Your task to perform on an android device: Open Google Chrome and open the bookmarks view Image 0: 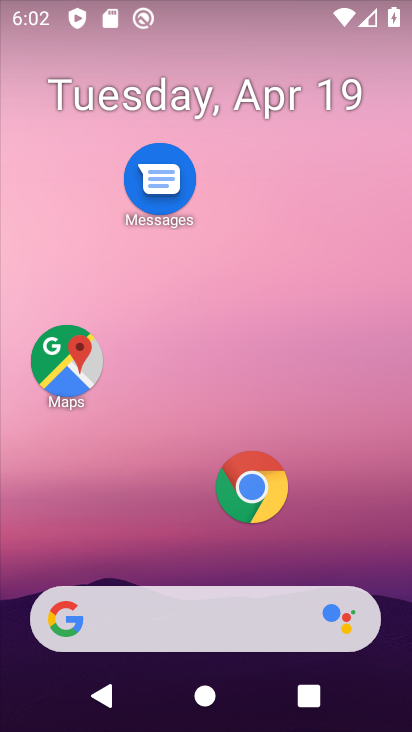
Step 0: drag from (205, 555) to (212, 95)
Your task to perform on an android device: Open Google Chrome and open the bookmarks view Image 1: 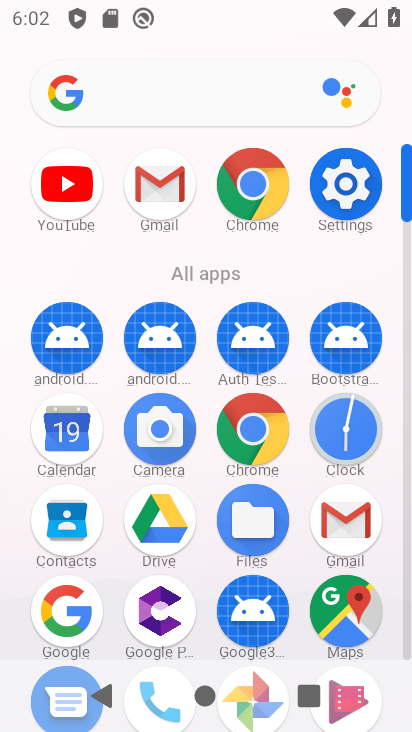
Step 1: drag from (205, 567) to (219, 247)
Your task to perform on an android device: Open Google Chrome and open the bookmarks view Image 2: 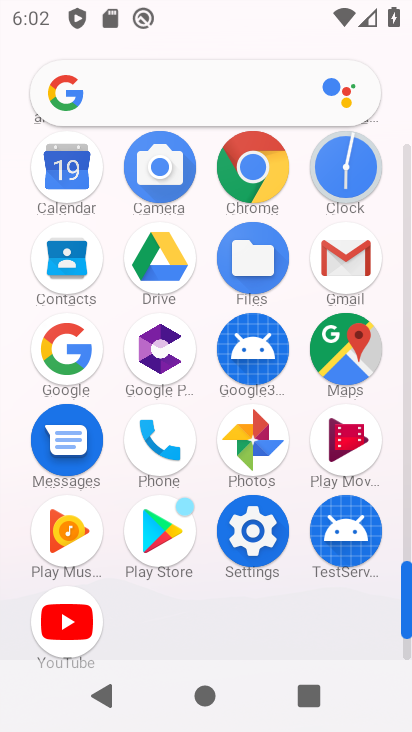
Step 2: click (248, 161)
Your task to perform on an android device: Open Google Chrome and open the bookmarks view Image 3: 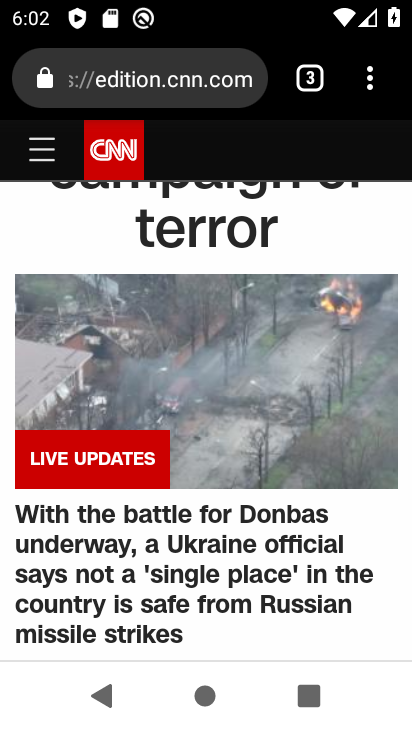
Step 3: click (365, 73)
Your task to perform on an android device: Open Google Chrome and open the bookmarks view Image 4: 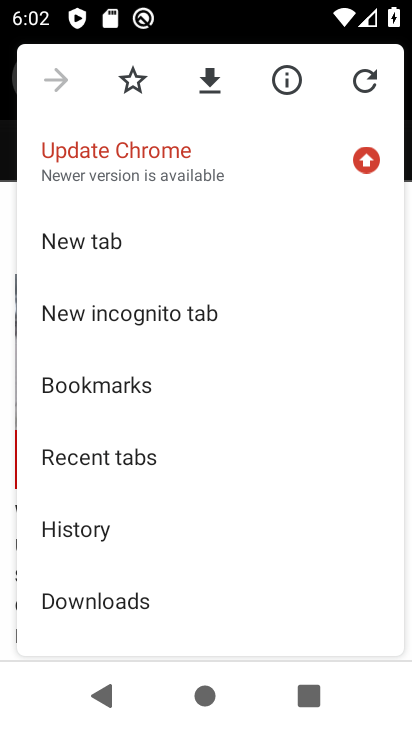
Step 4: click (161, 381)
Your task to perform on an android device: Open Google Chrome and open the bookmarks view Image 5: 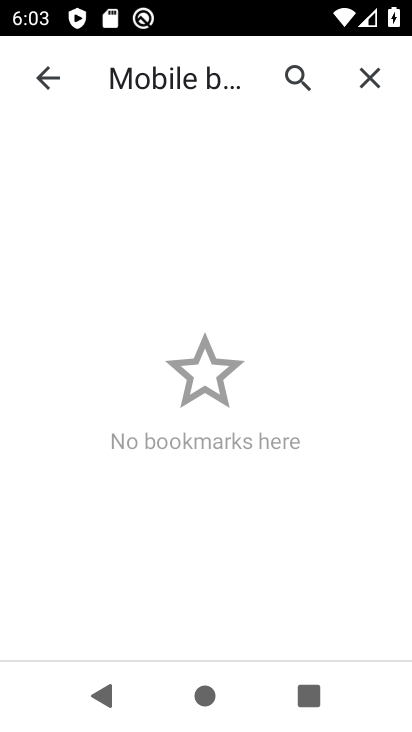
Step 5: task complete